Your task to perform on an android device: Open settings on Google Maps Image 0: 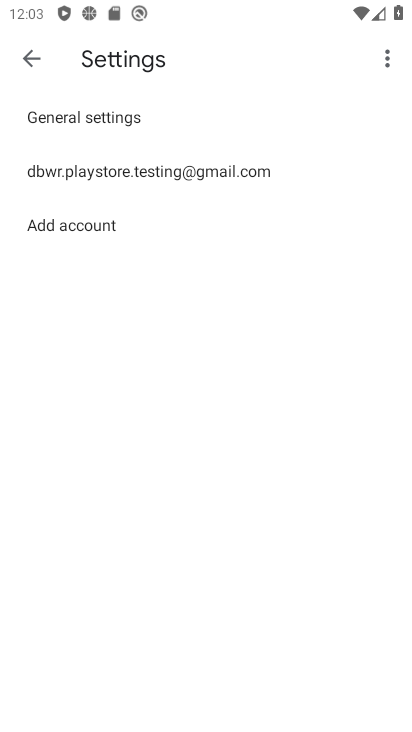
Step 0: press home button
Your task to perform on an android device: Open settings on Google Maps Image 1: 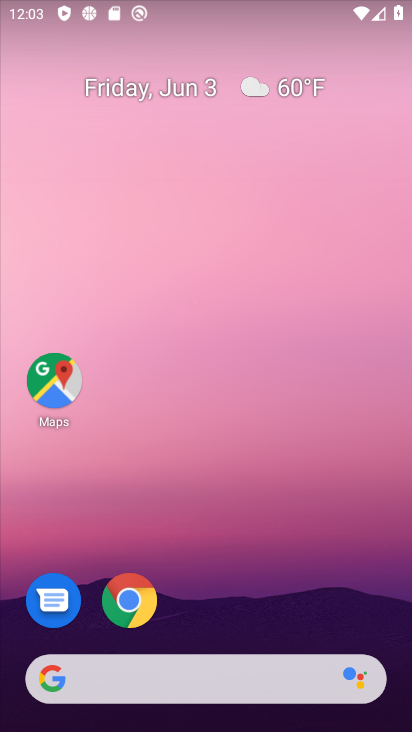
Step 1: click (66, 395)
Your task to perform on an android device: Open settings on Google Maps Image 2: 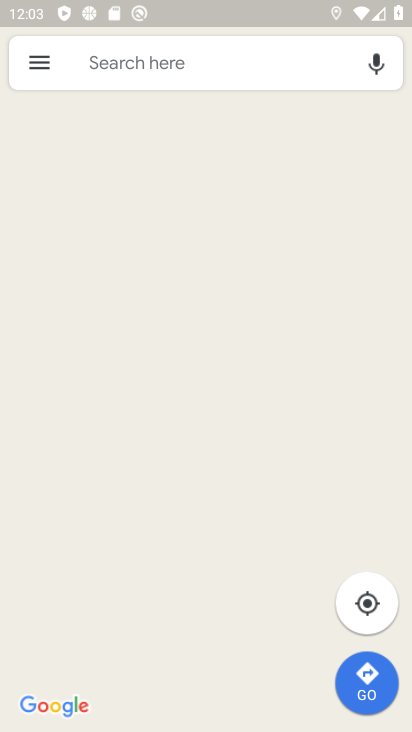
Step 2: click (35, 66)
Your task to perform on an android device: Open settings on Google Maps Image 3: 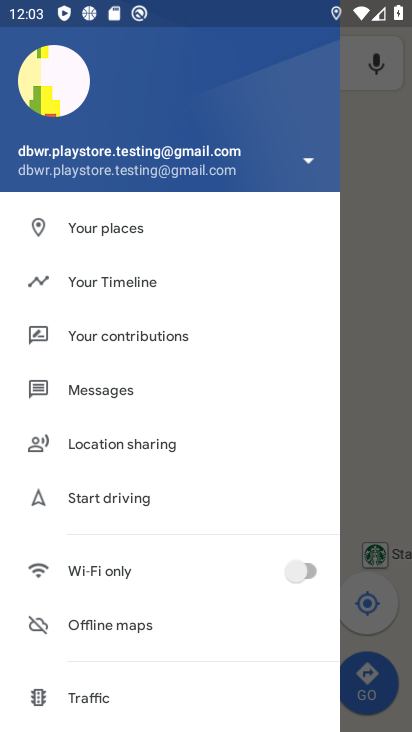
Step 3: drag from (144, 688) to (306, 136)
Your task to perform on an android device: Open settings on Google Maps Image 4: 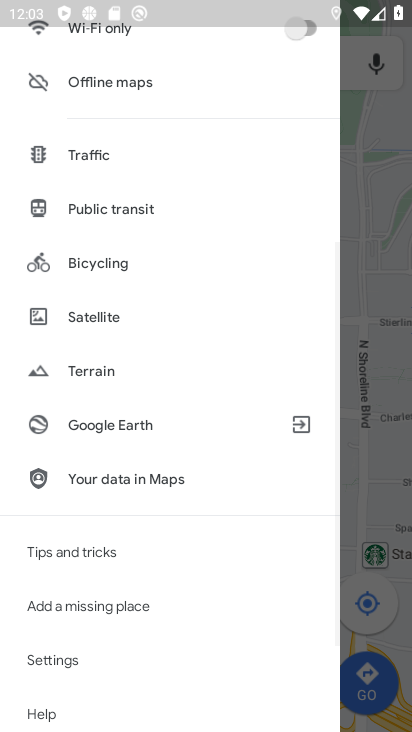
Step 4: drag from (156, 697) to (233, 407)
Your task to perform on an android device: Open settings on Google Maps Image 5: 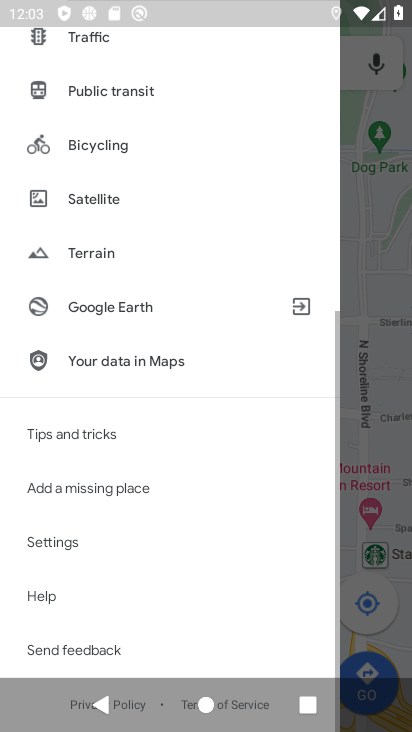
Step 5: click (106, 547)
Your task to perform on an android device: Open settings on Google Maps Image 6: 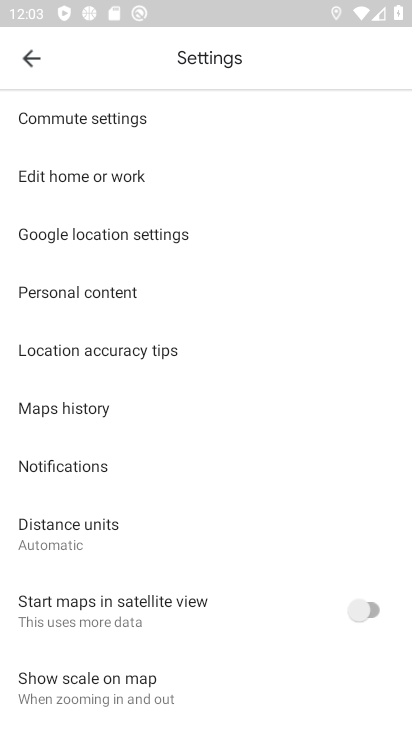
Step 6: task complete